Your task to perform on an android device: change text size in settings app Image 0: 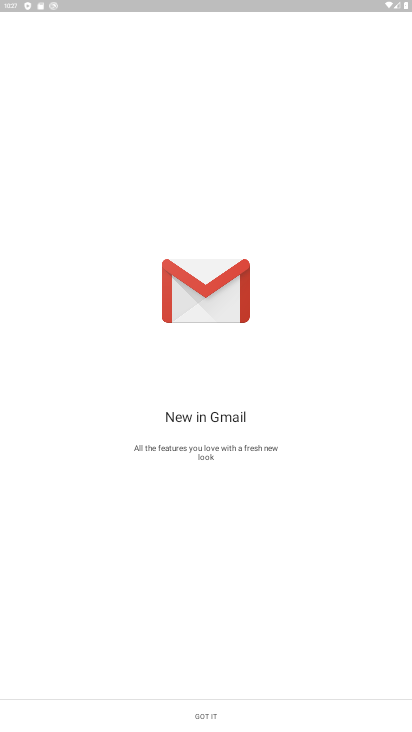
Step 0: press home button
Your task to perform on an android device: change text size in settings app Image 1: 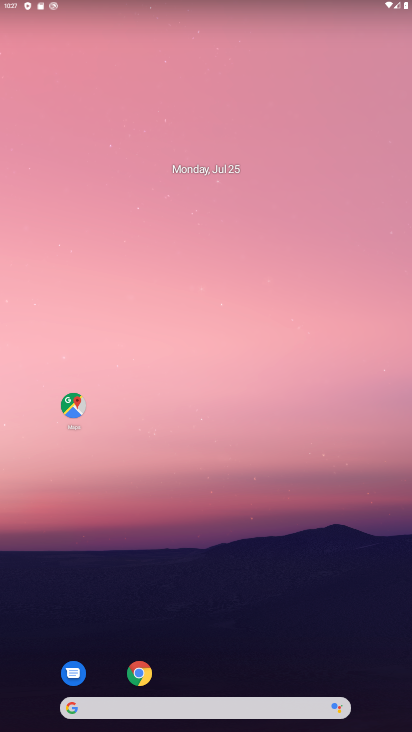
Step 1: drag from (216, 675) to (211, 2)
Your task to perform on an android device: change text size in settings app Image 2: 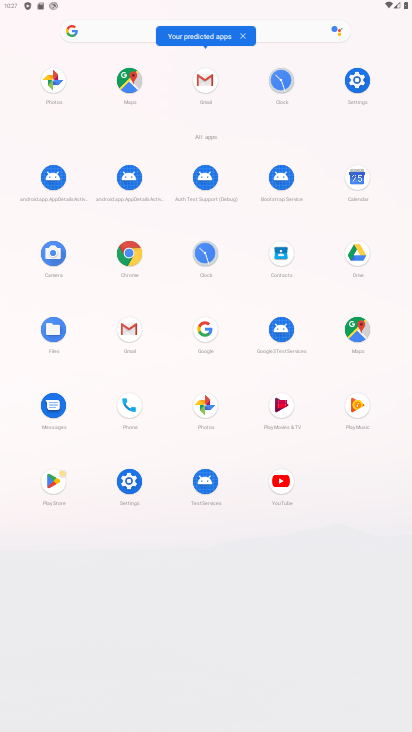
Step 2: click (128, 474)
Your task to perform on an android device: change text size in settings app Image 3: 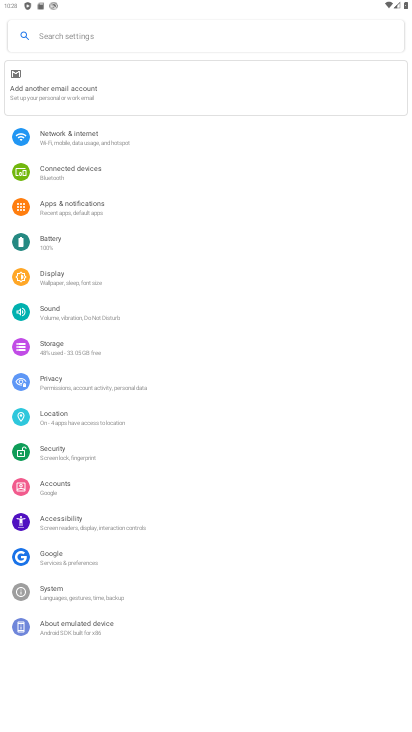
Step 3: click (83, 271)
Your task to perform on an android device: change text size in settings app Image 4: 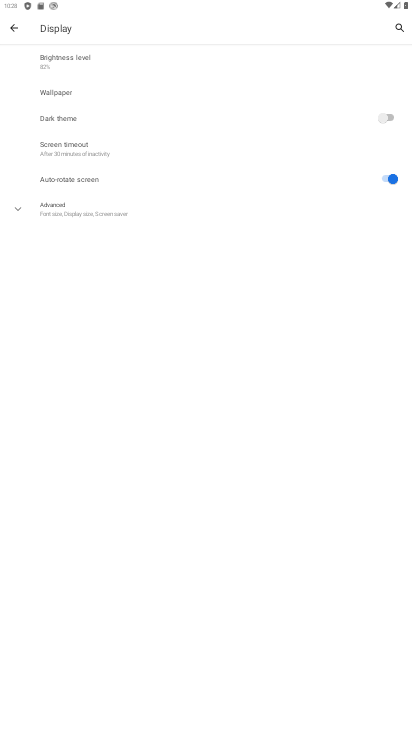
Step 4: click (15, 206)
Your task to perform on an android device: change text size in settings app Image 5: 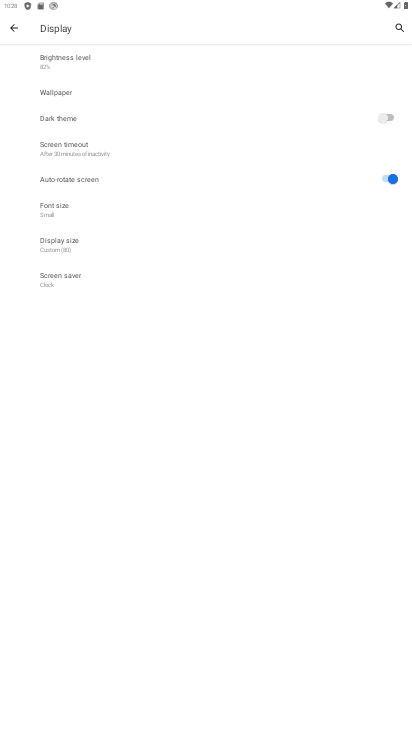
Step 5: click (71, 208)
Your task to perform on an android device: change text size in settings app Image 6: 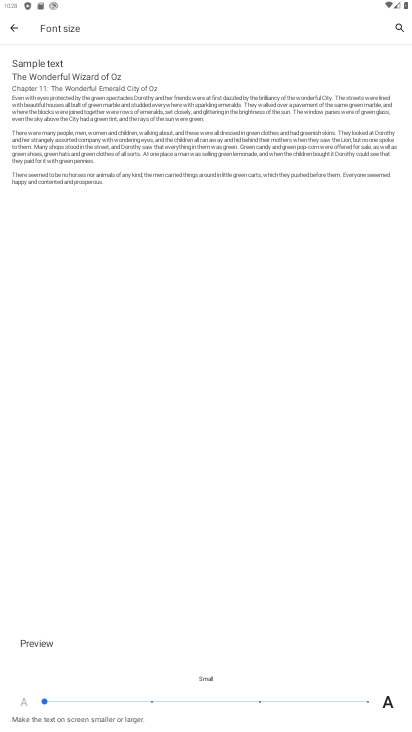
Step 6: click (366, 699)
Your task to perform on an android device: change text size in settings app Image 7: 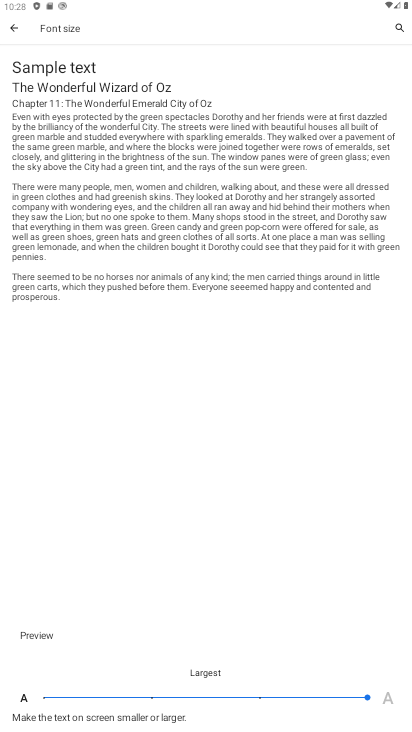
Step 7: task complete